Your task to perform on an android device: see sites visited before in the chrome app Image 0: 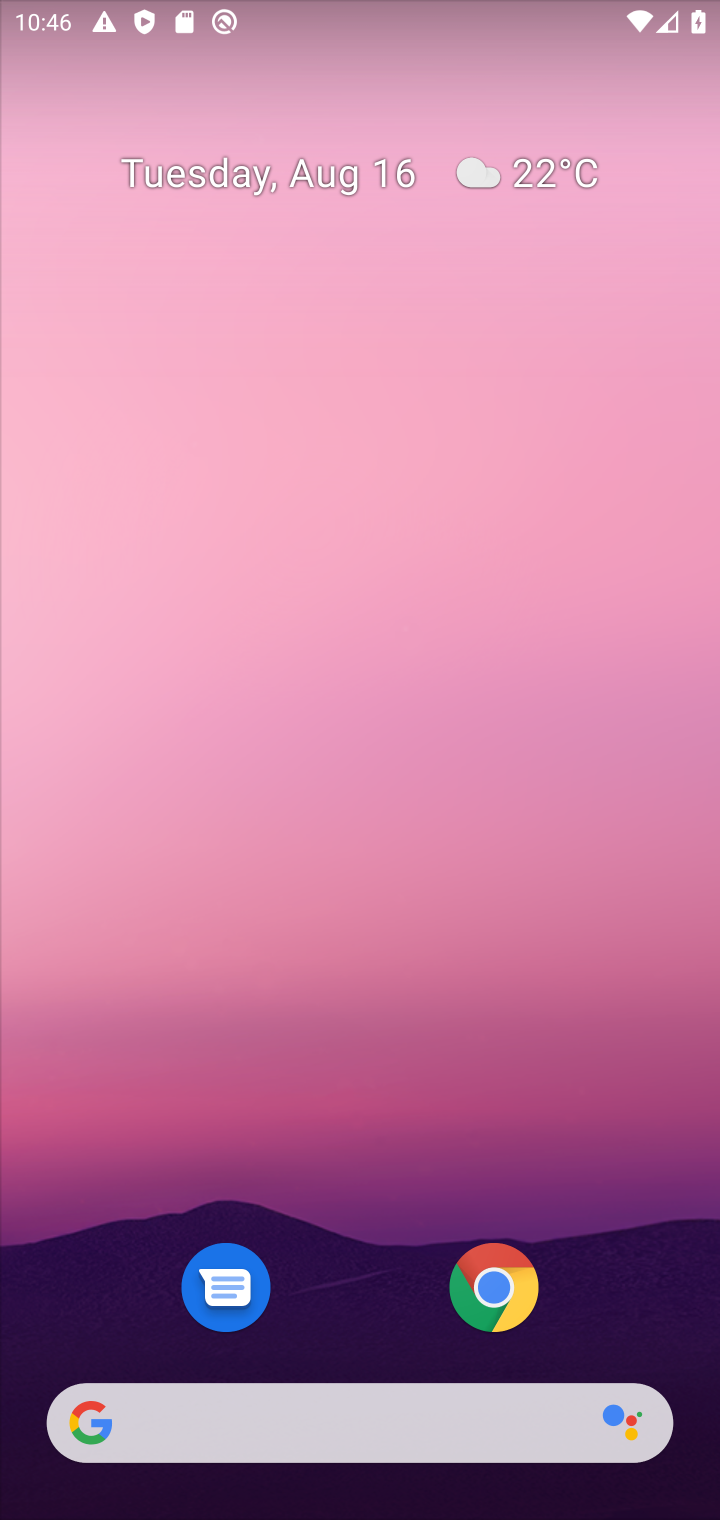
Step 0: click (482, 1294)
Your task to perform on an android device: see sites visited before in the chrome app Image 1: 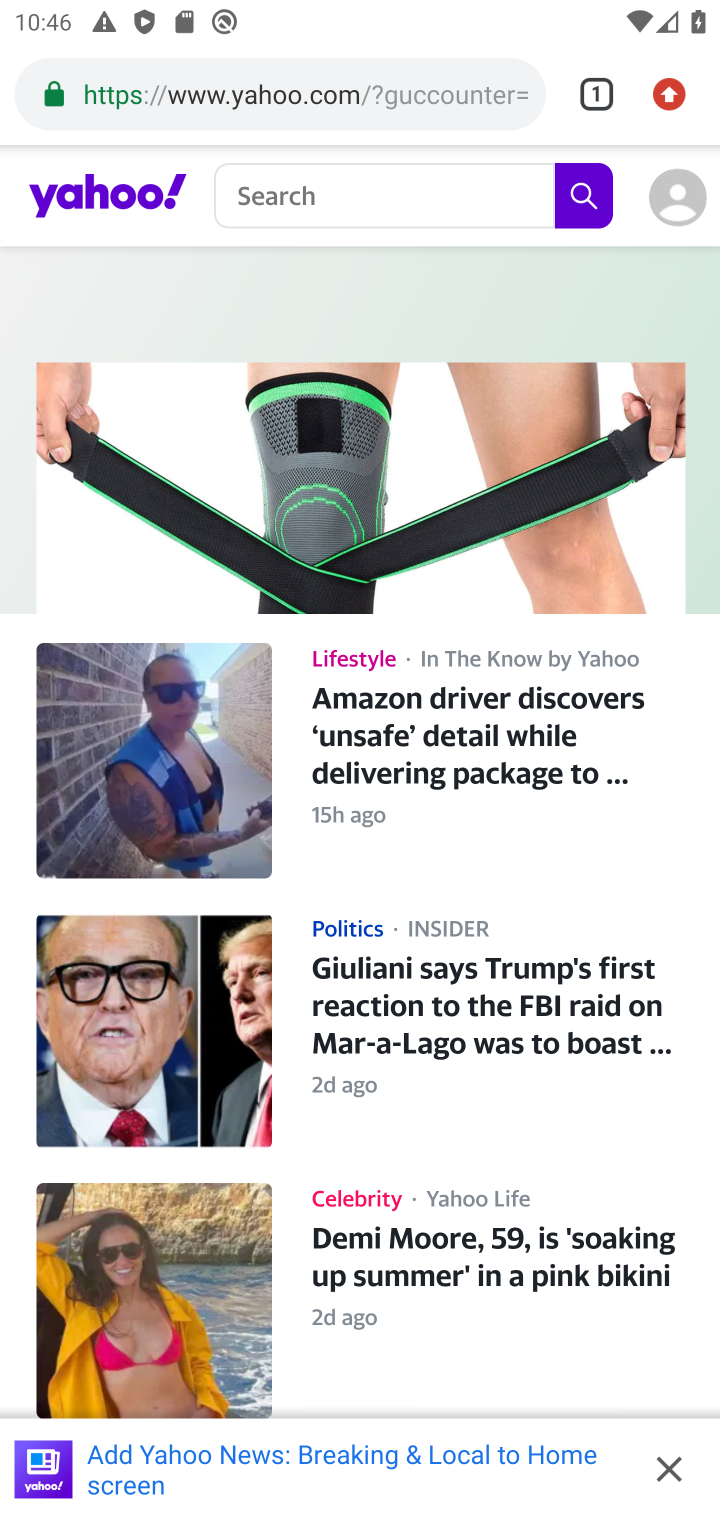
Step 1: click (664, 96)
Your task to perform on an android device: see sites visited before in the chrome app Image 2: 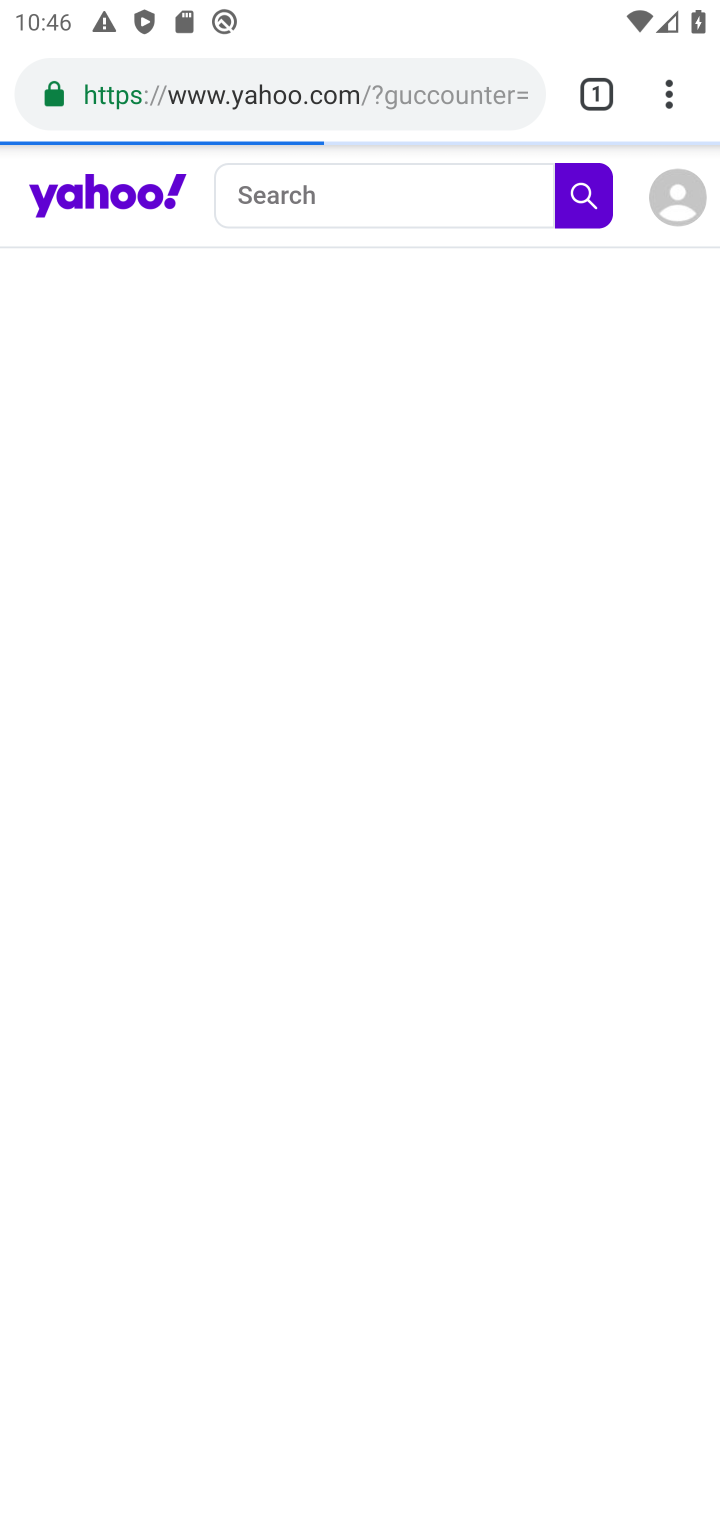
Step 2: click (660, 100)
Your task to perform on an android device: see sites visited before in the chrome app Image 3: 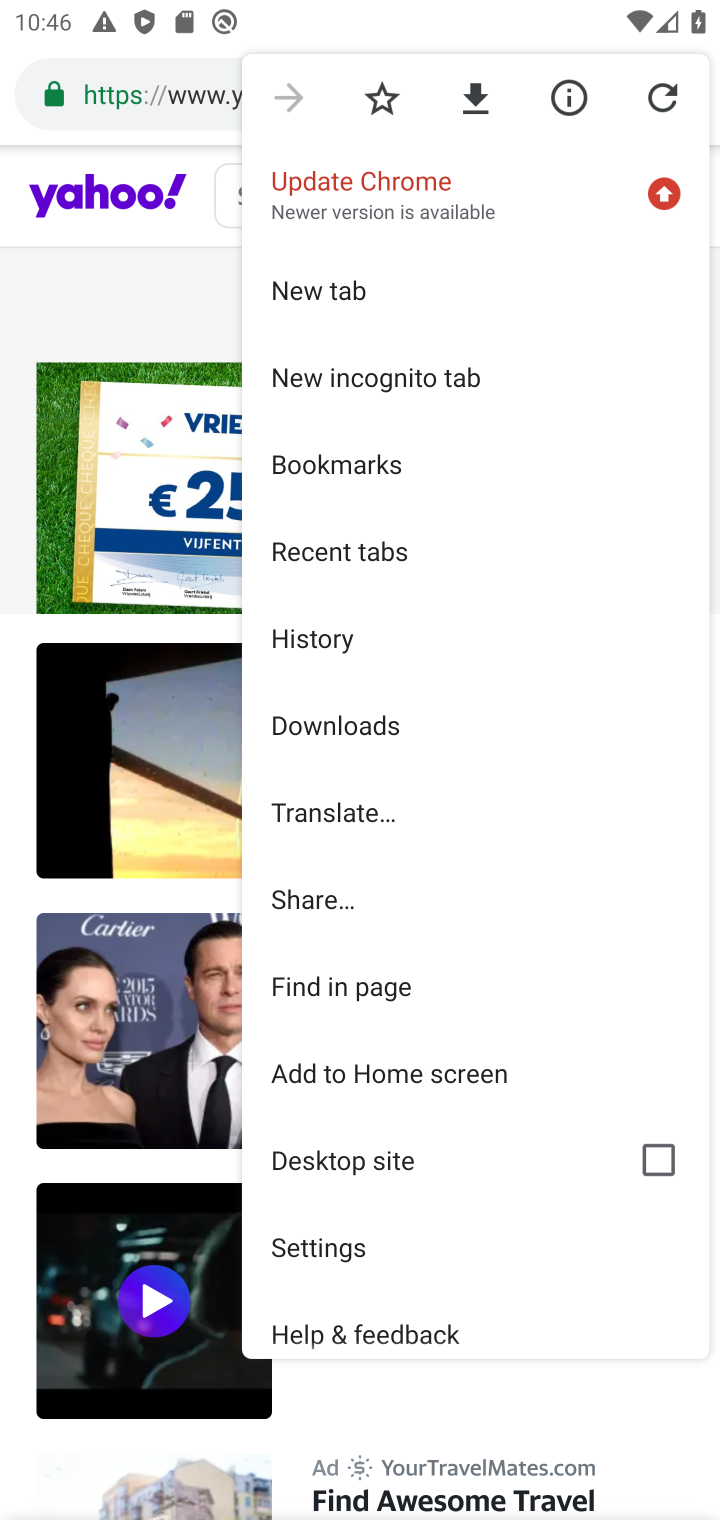
Step 3: click (284, 630)
Your task to perform on an android device: see sites visited before in the chrome app Image 4: 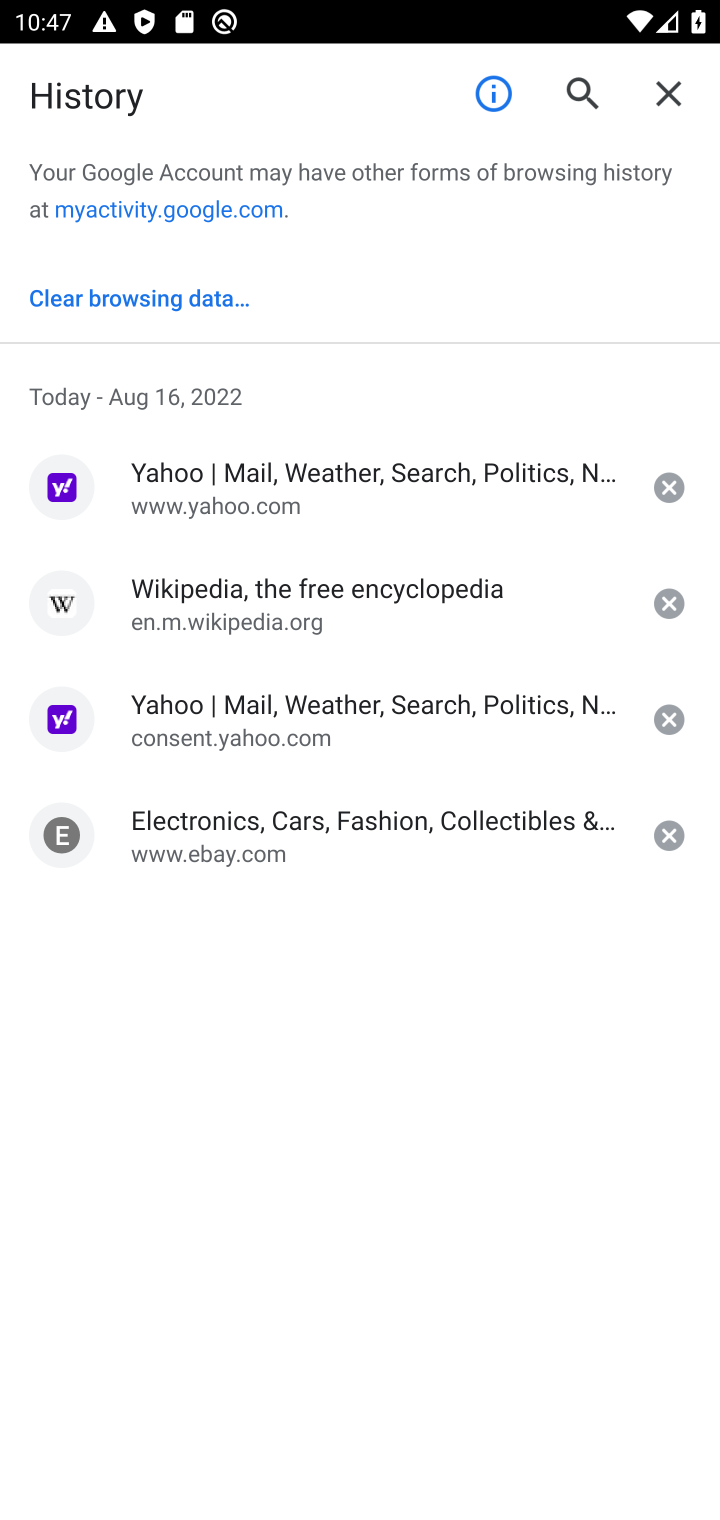
Step 4: task complete